Your task to perform on an android device: Search for vegetarian restaurants on Maps Image 0: 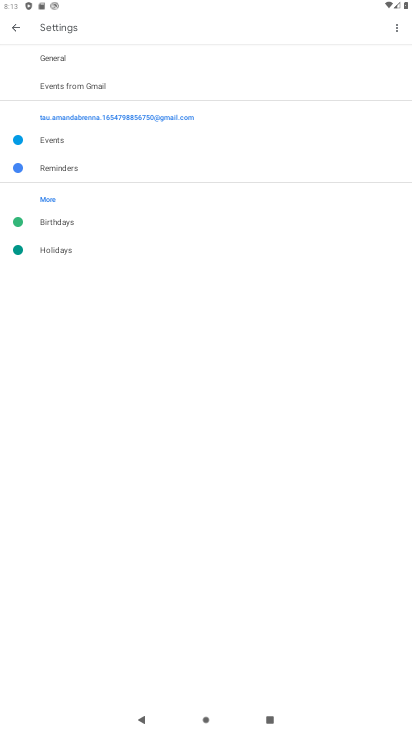
Step 0: press home button
Your task to perform on an android device: Search for vegetarian restaurants on Maps Image 1: 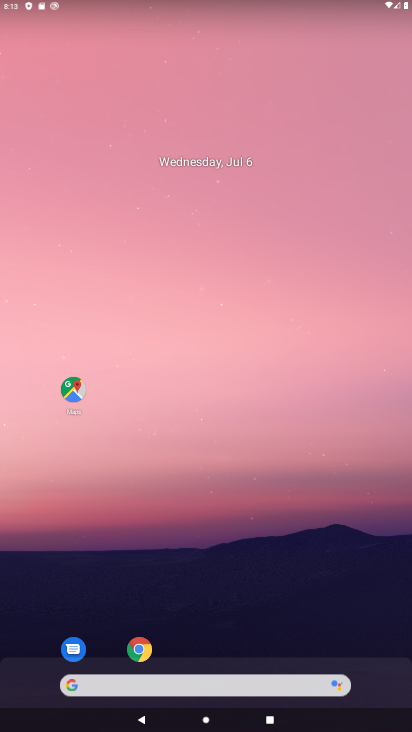
Step 1: drag from (221, 652) to (181, 82)
Your task to perform on an android device: Search for vegetarian restaurants on Maps Image 2: 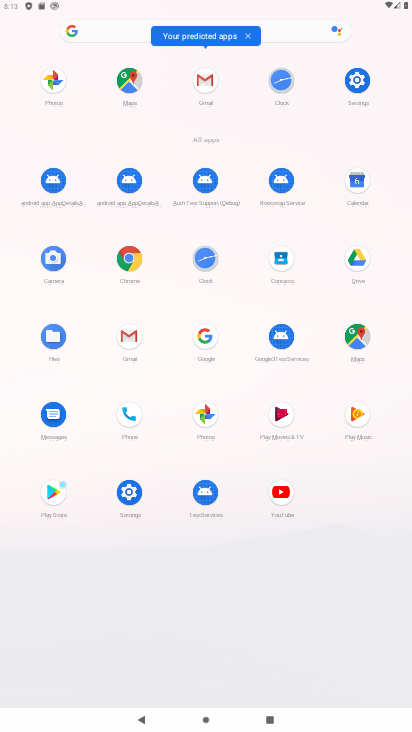
Step 2: click (353, 337)
Your task to perform on an android device: Search for vegetarian restaurants on Maps Image 3: 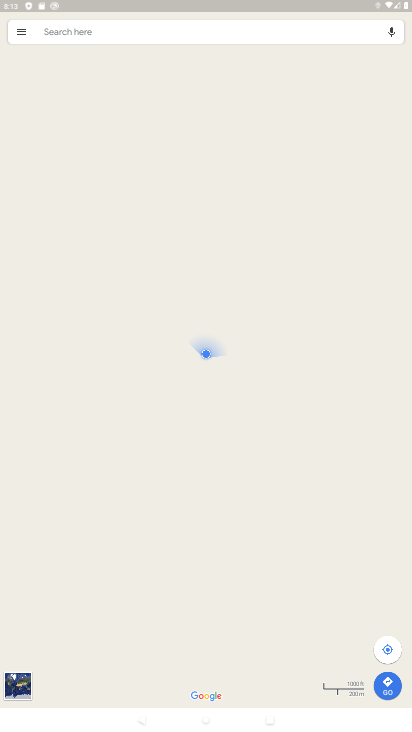
Step 3: click (255, 26)
Your task to perform on an android device: Search for vegetarian restaurants on Maps Image 4: 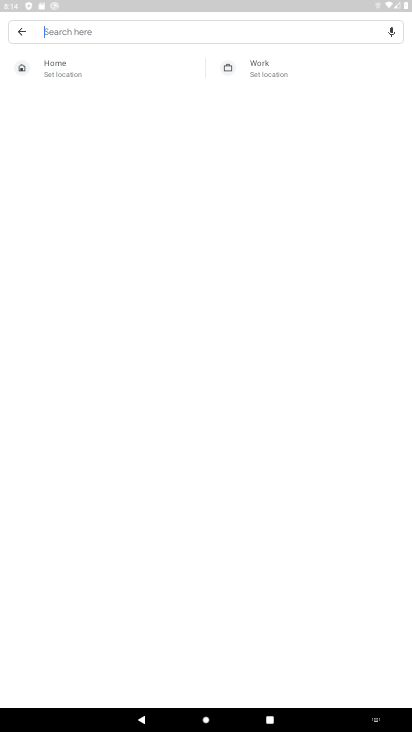
Step 4: type "vegetarian restaurants"
Your task to perform on an android device: Search for vegetarian restaurants on Maps Image 5: 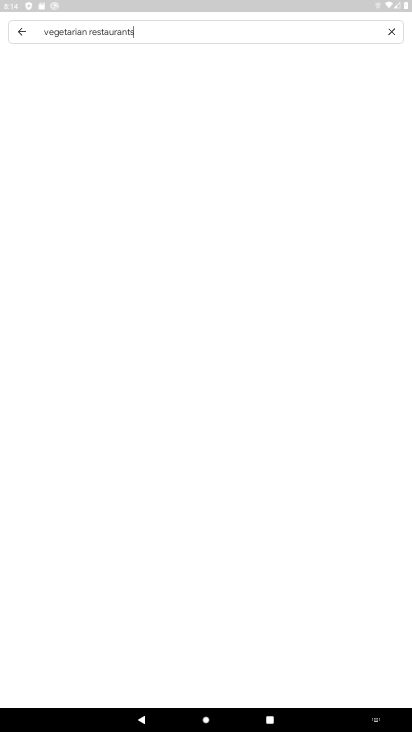
Step 5: type ""
Your task to perform on an android device: Search for vegetarian restaurants on Maps Image 6: 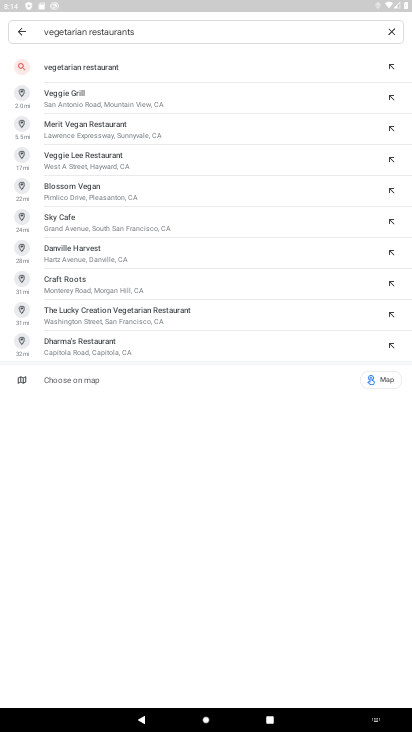
Step 6: click (116, 68)
Your task to perform on an android device: Search for vegetarian restaurants on Maps Image 7: 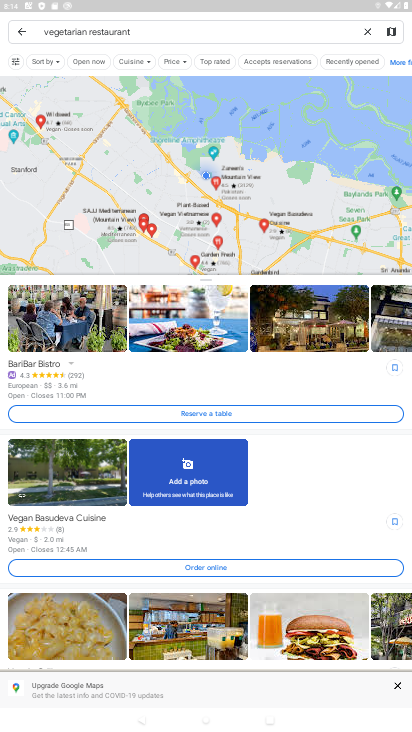
Step 7: task complete